Your task to perform on an android device: open a bookmark in the chrome app Image 0: 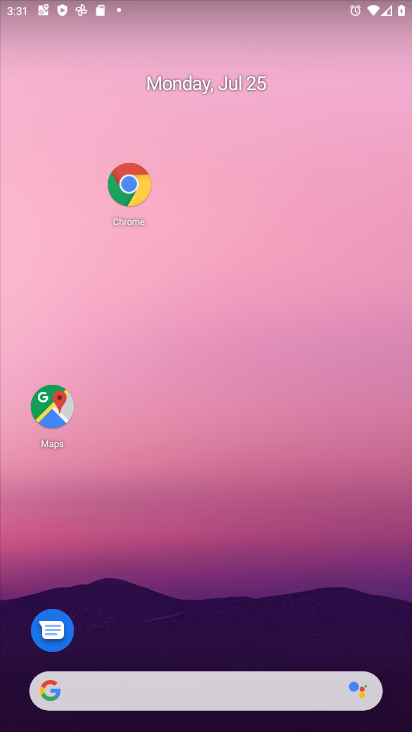
Step 0: click (126, 212)
Your task to perform on an android device: open a bookmark in the chrome app Image 1: 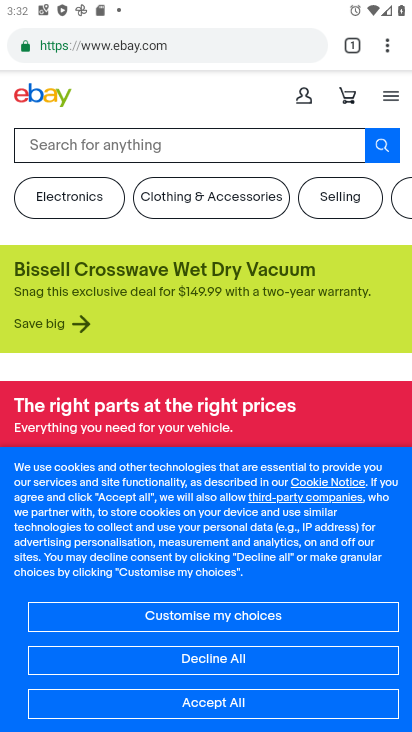
Step 1: click (399, 52)
Your task to perform on an android device: open a bookmark in the chrome app Image 2: 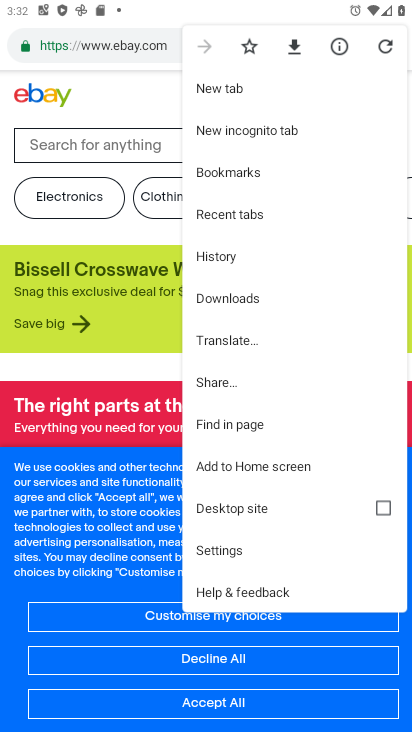
Step 2: click (248, 548)
Your task to perform on an android device: open a bookmark in the chrome app Image 3: 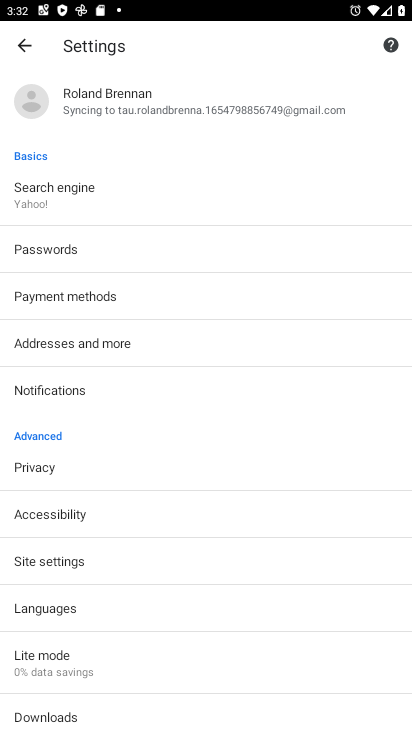
Step 3: task complete